Your task to perform on an android device: Find coffee shops on Maps Image 0: 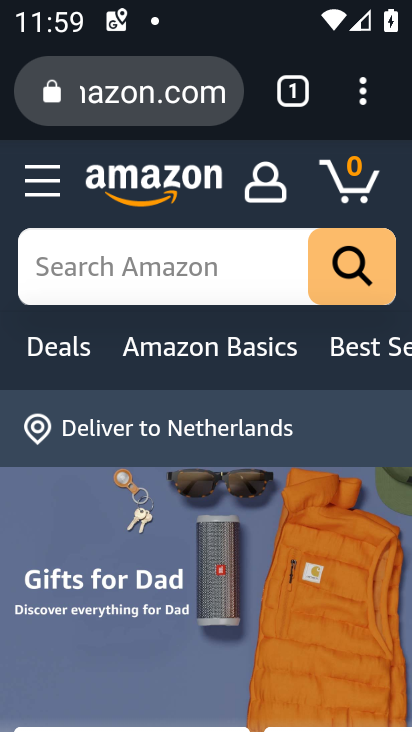
Step 0: press home button
Your task to perform on an android device: Find coffee shops on Maps Image 1: 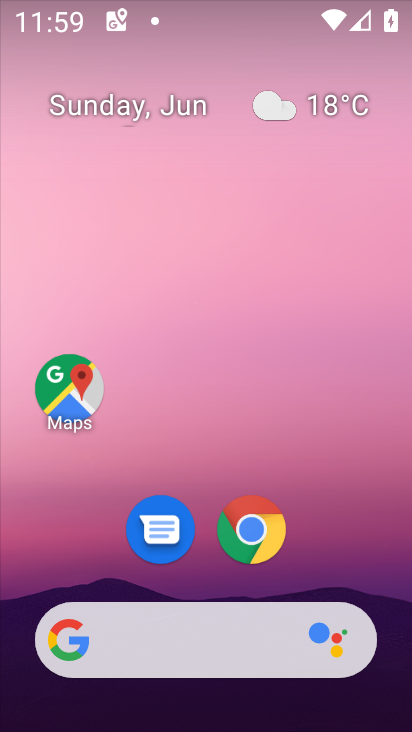
Step 1: drag from (352, 521) to (209, 47)
Your task to perform on an android device: Find coffee shops on Maps Image 2: 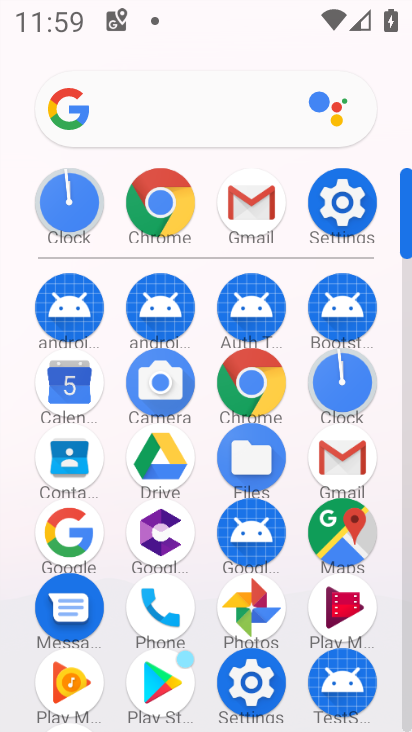
Step 2: click (335, 535)
Your task to perform on an android device: Find coffee shops on Maps Image 3: 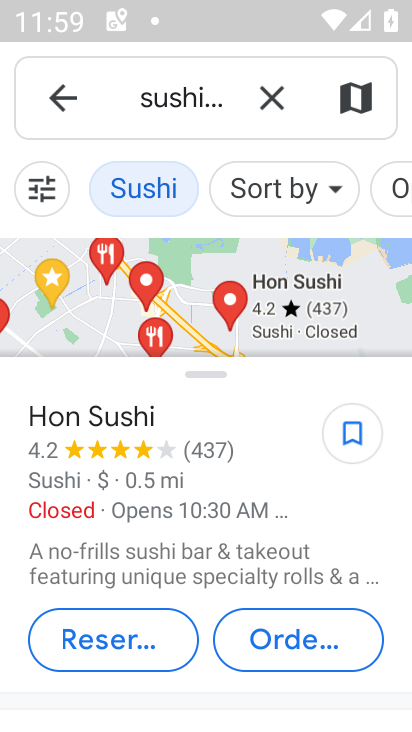
Step 3: click (289, 107)
Your task to perform on an android device: Find coffee shops on Maps Image 4: 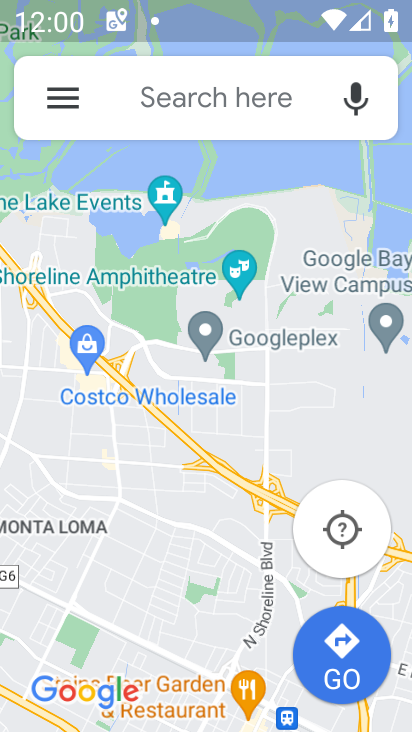
Step 4: click (199, 103)
Your task to perform on an android device: Find coffee shops on Maps Image 5: 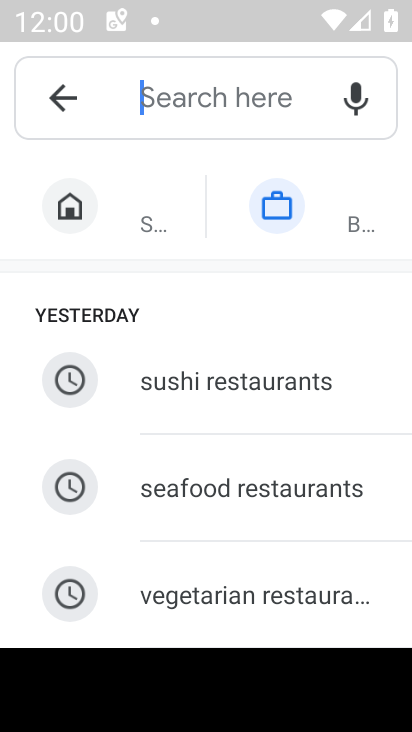
Step 5: drag from (254, 564) to (325, 216)
Your task to perform on an android device: Find coffee shops on Maps Image 6: 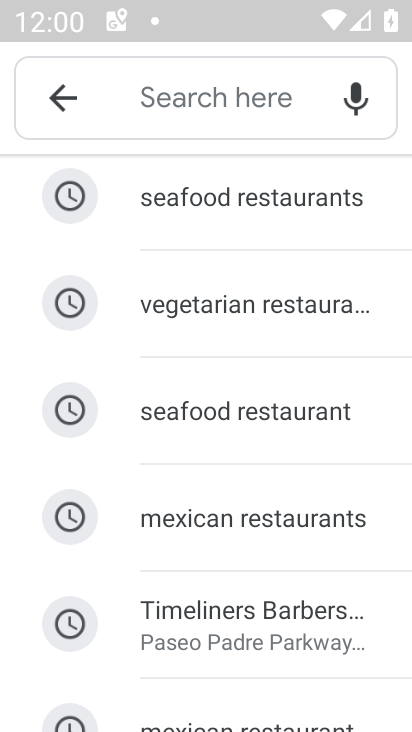
Step 6: drag from (304, 548) to (279, 284)
Your task to perform on an android device: Find coffee shops on Maps Image 7: 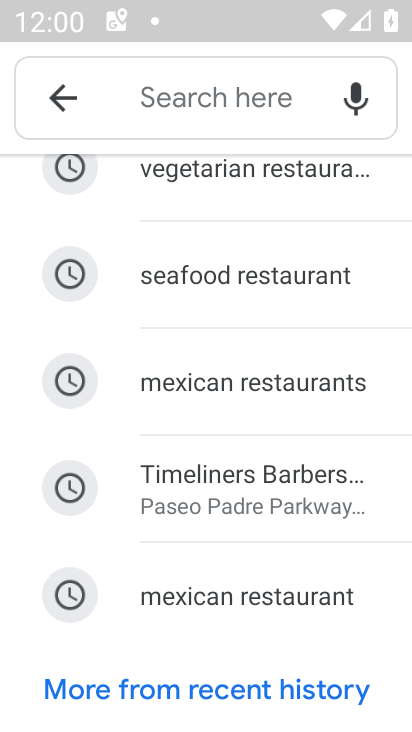
Step 7: drag from (179, 282) to (239, 648)
Your task to perform on an android device: Find coffee shops on Maps Image 8: 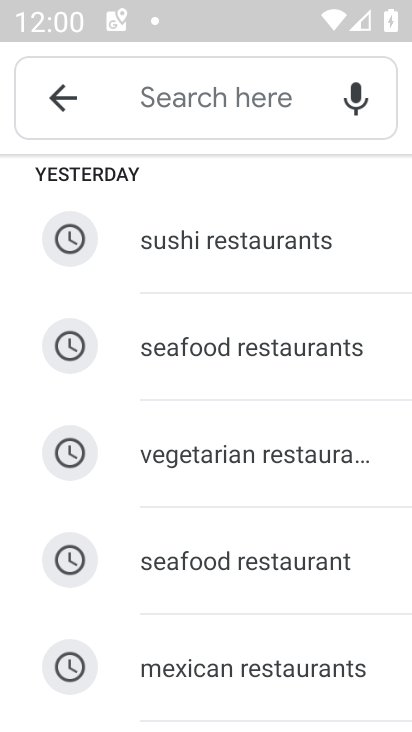
Step 8: drag from (218, 283) to (260, 632)
Your task to perform on an android device: Find coffee shops on Maps Image 9: 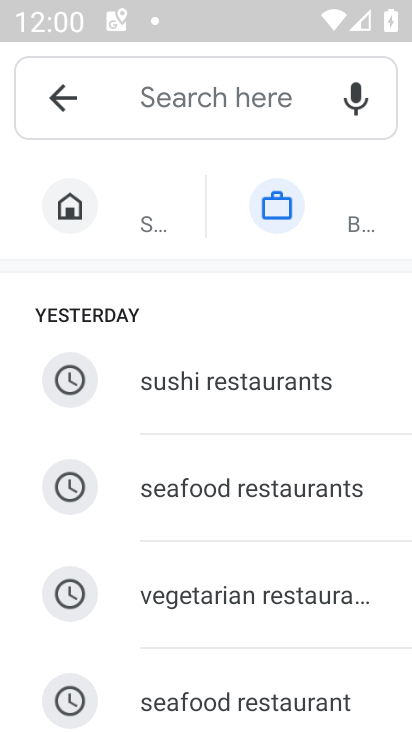
Step 9: click (212, 96)
Your task to perform on an android device: Find coffee shops on Maps Image 10: 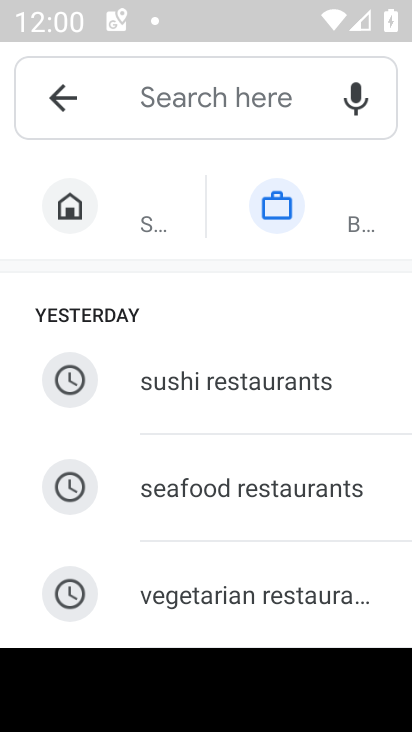
Step 10: type "coffee"
Your task to perform on an android device: Find coffee shops on Maps Image 11: 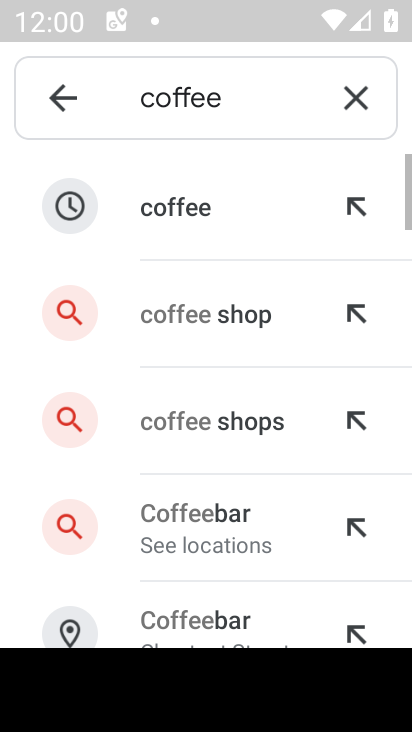
Step 11: click (190, 210)
Your task to perform on an android device: Find coffee shops on Maps Image 12: 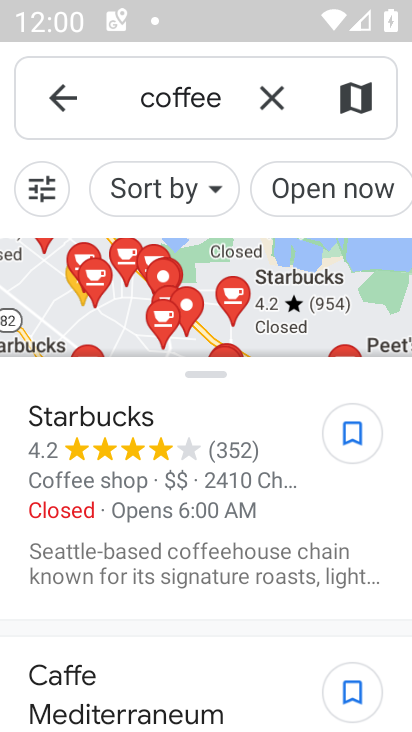
Step 12: task complete